Your task to perform on an android device: Go to Android settings Image 0: 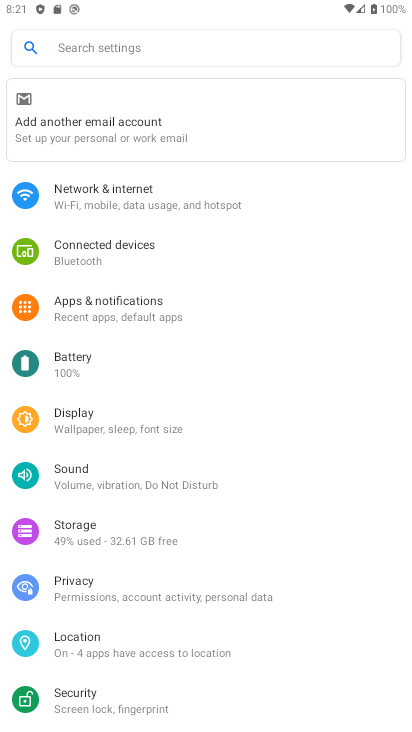
Step 0: drag from (216, 571) to (305, 91)
Your task to perform on an android device: Go to Android settings Image 1: 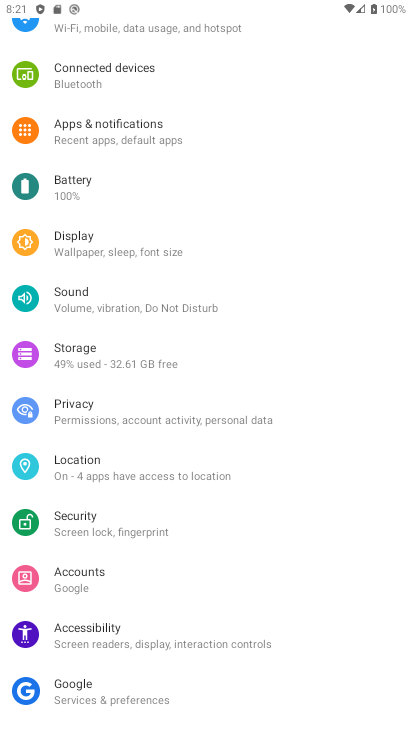
Step 1: drag from (161, 621) to (243, 124)
Your task to perform on an android device: Go to Android settings Image 2: 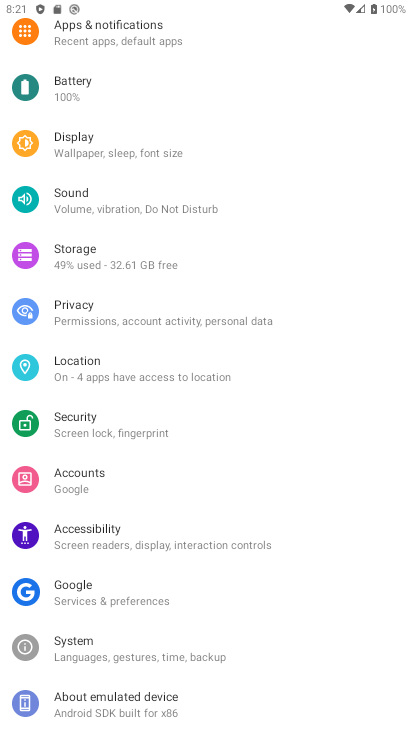
Step 2: click (143, 690)
Your task to perform on an android device: Go to Android settings Image 3: 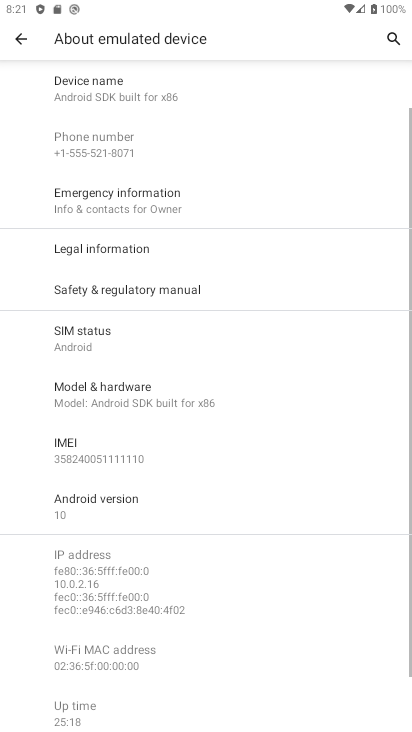
Step 3: click (120, 505)
Your task to perform on an android device: Go to Android settings Image 4: 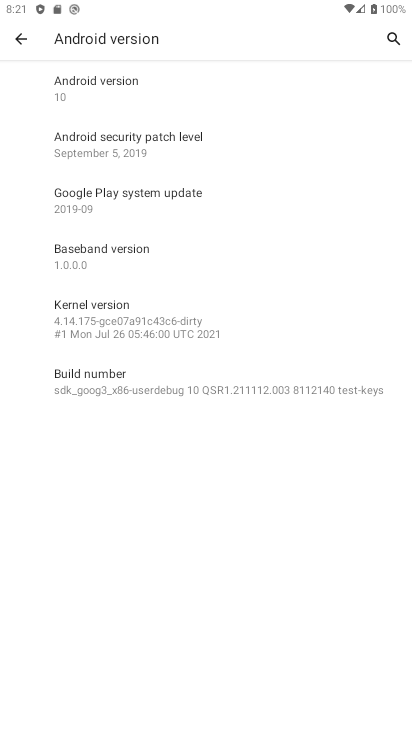
Step 4: task complete